Your task to perform on an android device: check google app version Image 0: 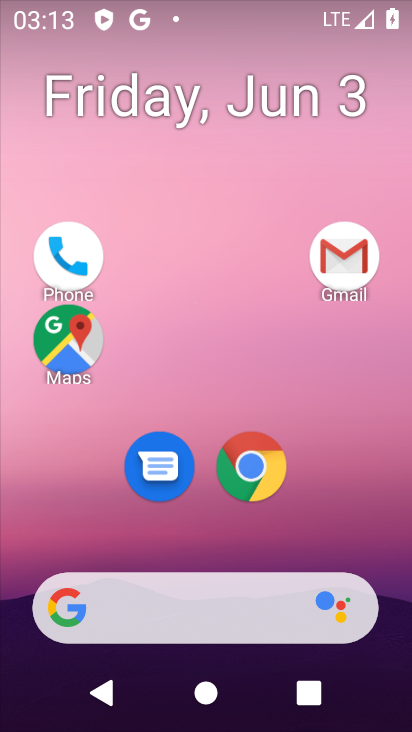
Step 0: click (79, 619)
Your task to perform on an android device: check google app version Image 1: 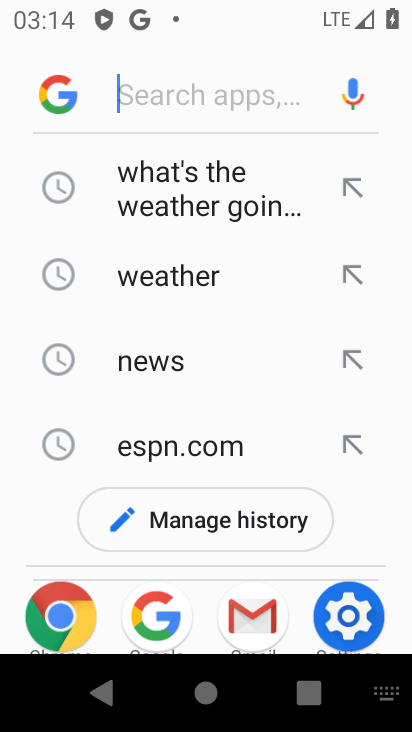
Step 1: click (48, 111)
Your task to perform on an android device: check google app version Image 2: 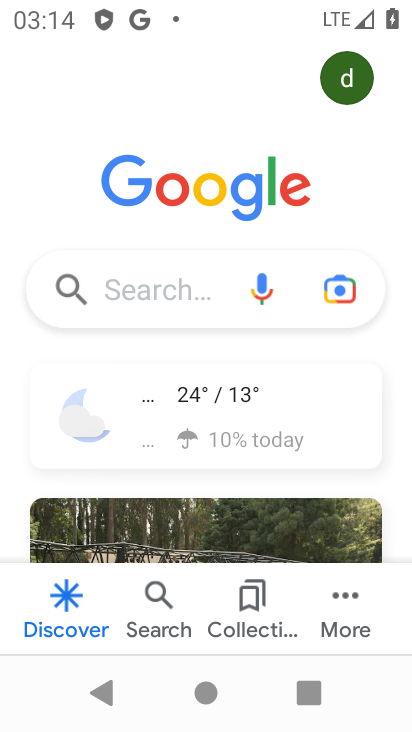
Step 2: click (342, 629)
Your task to perform on an android device: check google app version Image 3: 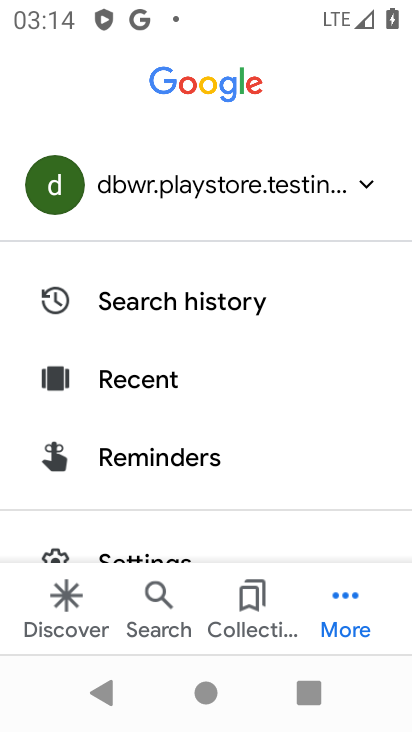
Step 3: drag from (171, 512) to (171, 211)
Your task to perform on an android device: check google app version Image 4: 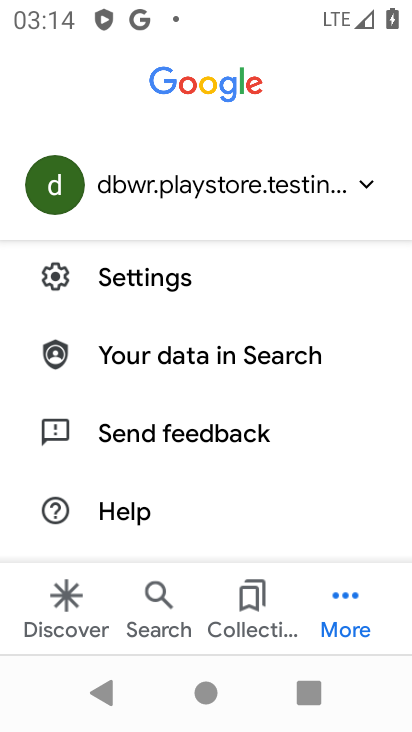
Step 4: click (134, 280)
Your task to perform on an android device: check google app version Image 5: 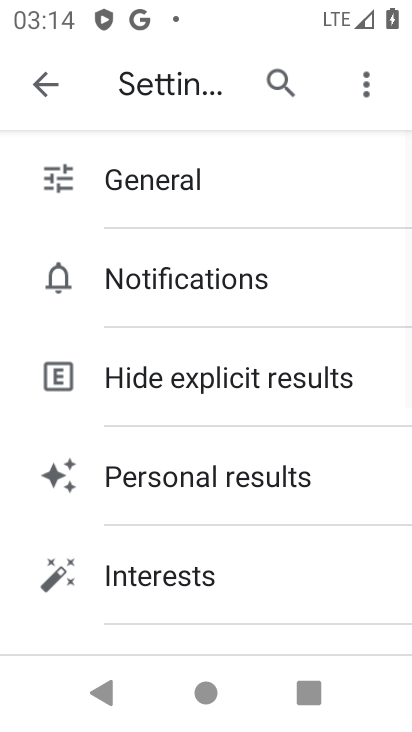
Step 5: drag from (224, 554) to (228, 256)
Your task to perform on an android device: check google app version Image 6: 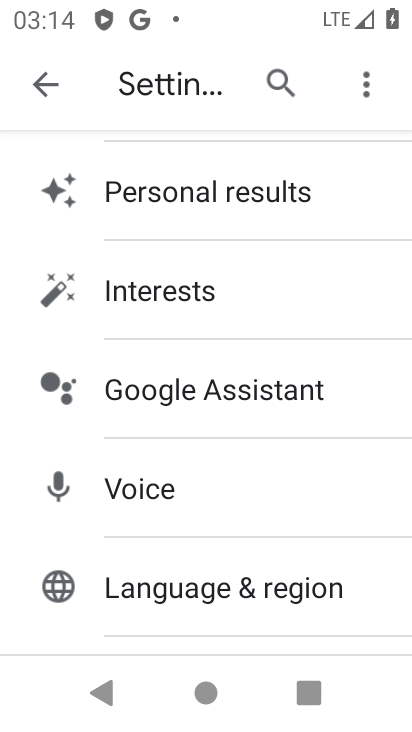
Step 6: drag from (170, 571) to (184, 188)
Your task to perform on an android device: check google app version Image 7: 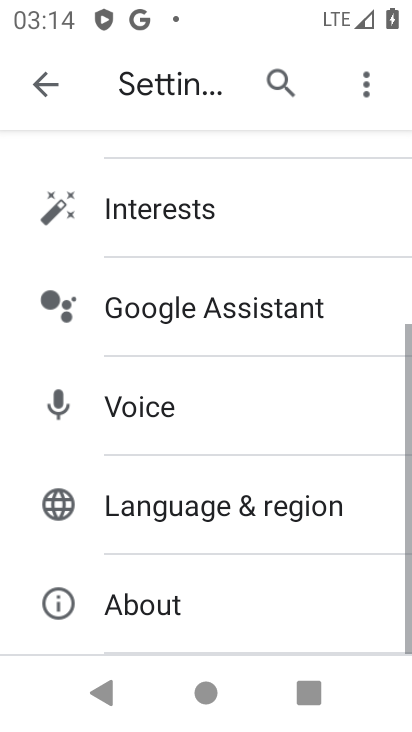
Step 7: drag from (153, 329) to (152, 219)
Your task to perform on an android device: check google app version Image 8: 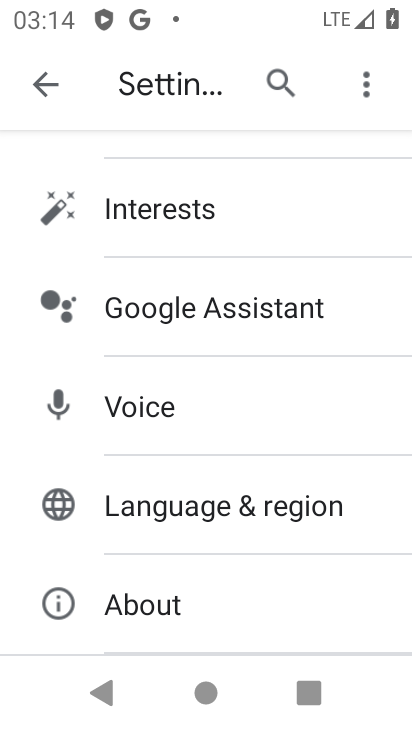
Step 8: click (149, 613)
Your task to perform on an android device: check google app version Image 9: 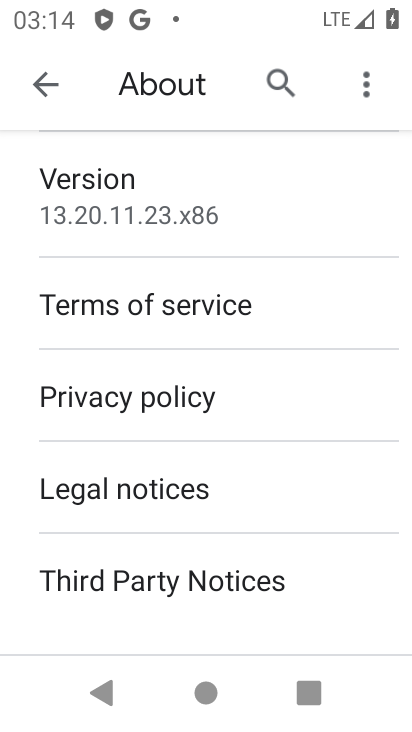
Step 9: task complete